Your task to perform on an android device: Open settings on Google Maps Image 0: 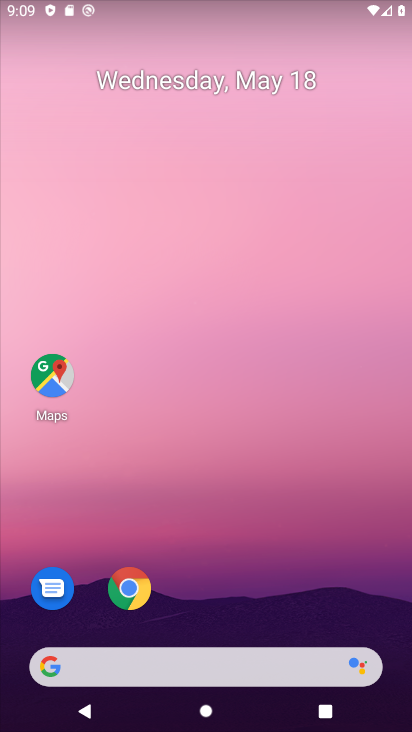
Step 0: drag from (279, 687) to (409, 145)
Your task to perform on an android device: Open settings on Google Maps Image 1: 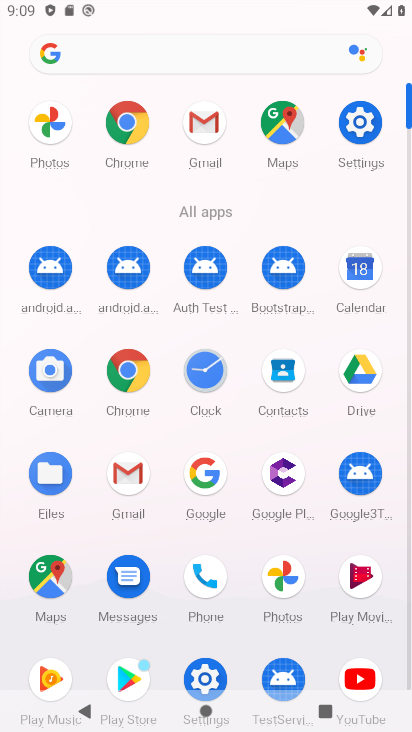
Step 1: click (49, 578)
Your task to perform on an android device: Open settings on Google Maps Image 2: 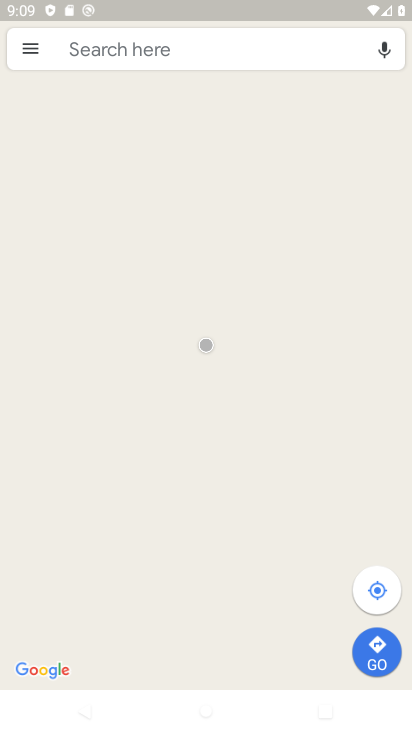
Step 2: click (34, 52)
Your task to perform on an android device: Open settings on Google Maps Image 3: 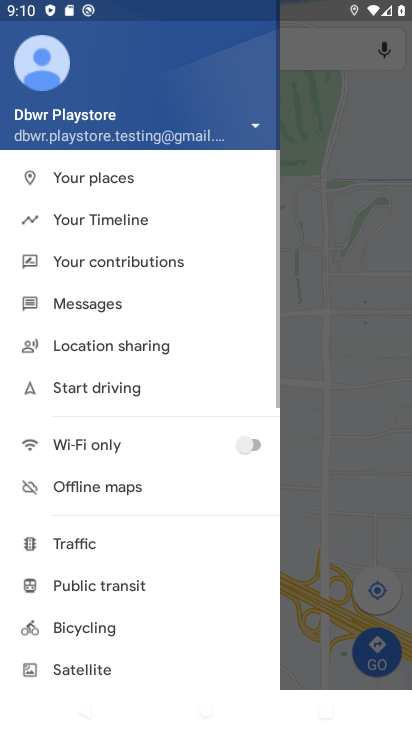
Step 3: drag from (97, 633) to (244, 310)
Your task to perform on an android device: Open settings on Google Maps Image 4: 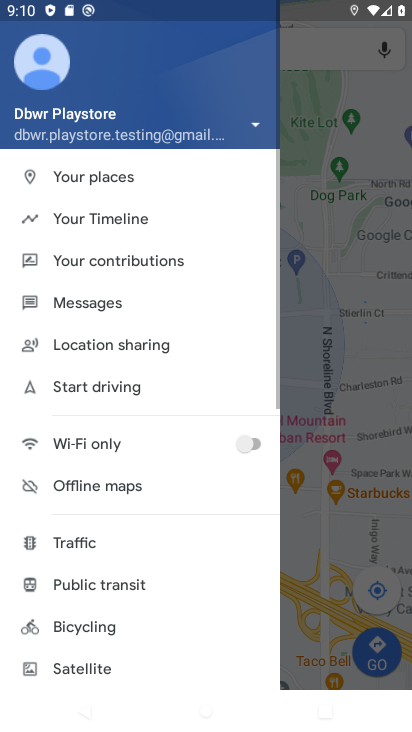
Step 4: drag from (116, 561) to (206, 337)
Your task to perform on an android device: Open settings on Google Maps Image 5: 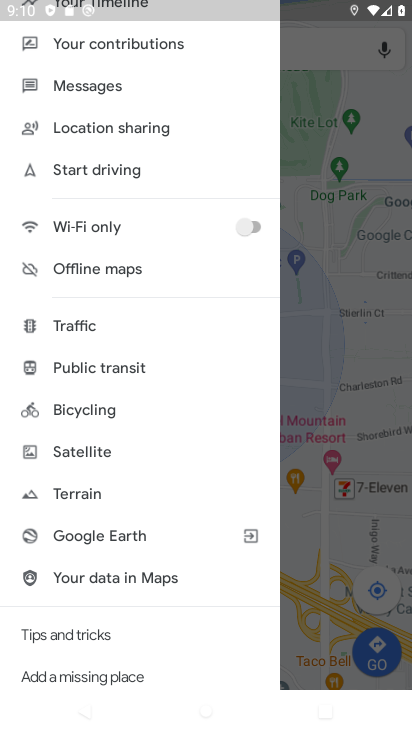
Step 5: drag from (59, 648) to (140, 503)
Your task to perform on an android device: Open settings on Google Maps Image 6: 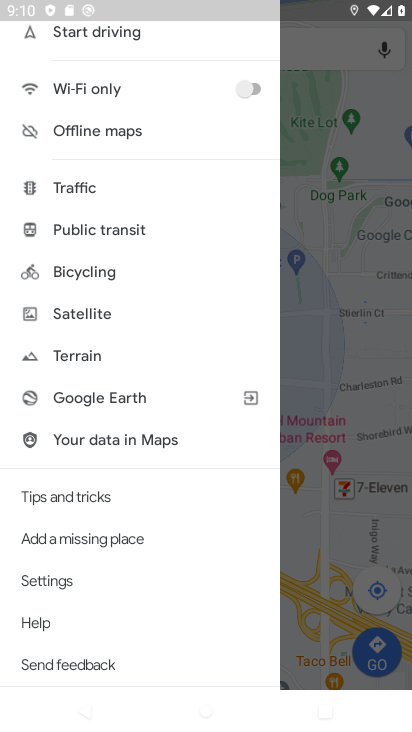
Step 6: click (40, 586)
Your task to perform on an android device: Open settings on Google Maps Image 7: 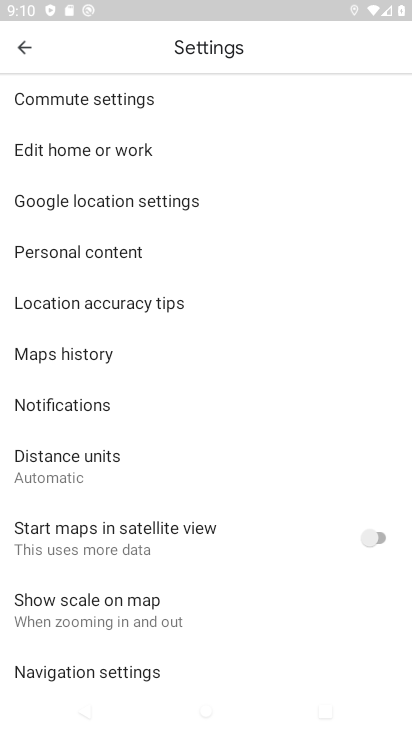
Step 7: task complete